Your task to perform on an android device: Open Amazon Image 0: 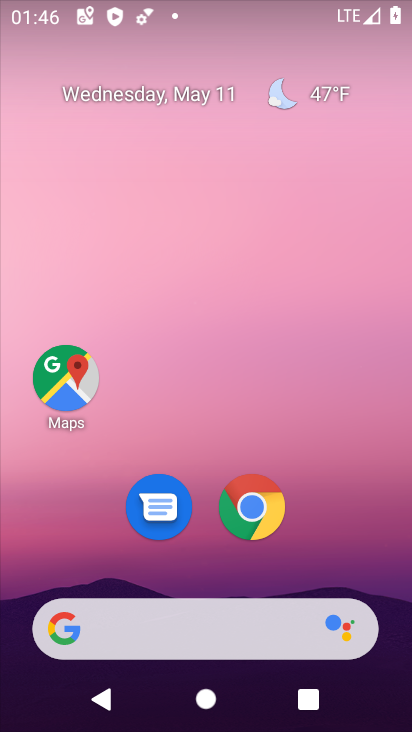
Step 0: click (66, 372)
Your task to perform on an android device: Open Amazon Image 1: 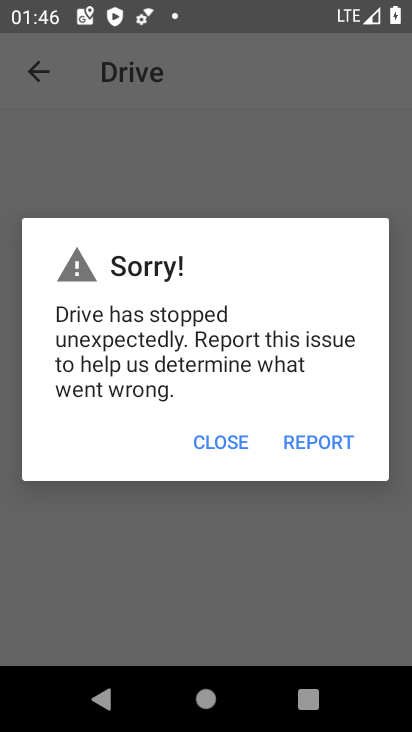
Step 1: click (208, 442)
Your task to perform on an android device: Open Amazon Image 2: 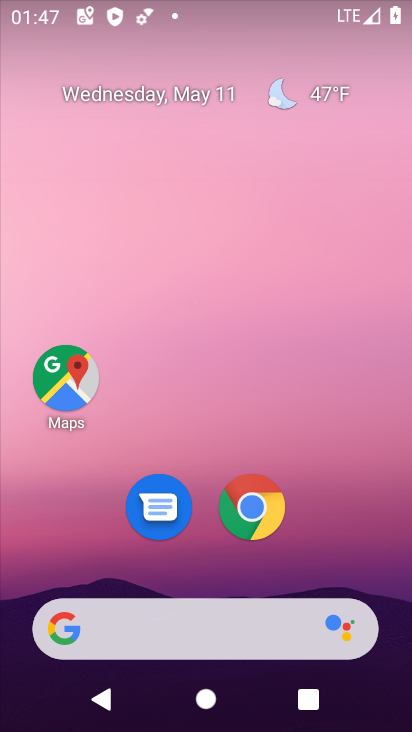
Step 2: click (251, 507)
Your task to perform on an android device: Open Amazon Image 3: 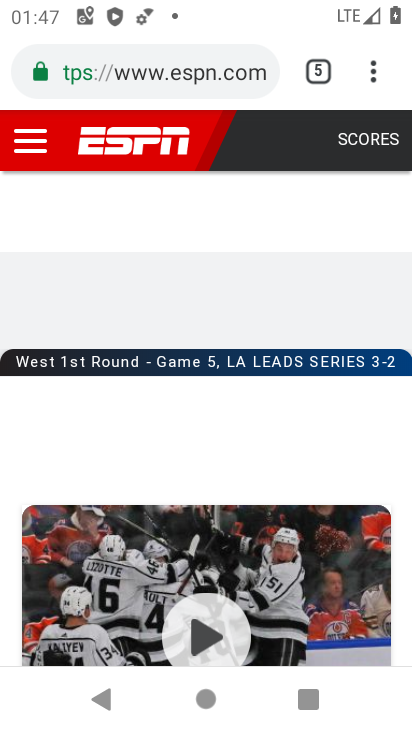
Step 3: click (370, 65)
Your task to perform on an android device: Open Amazon Image 4: 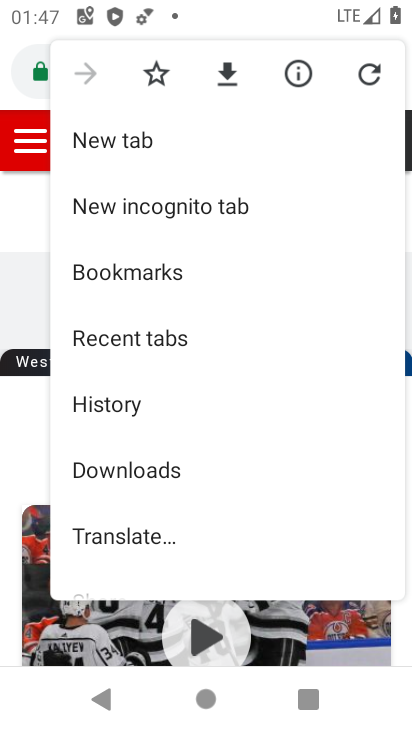
Step 4: click (132, 138)
Your task to perform on an android device: Open Amazon Image 5: 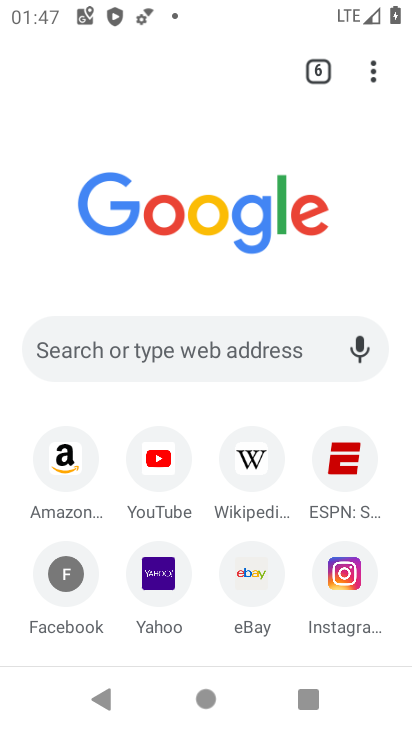
Step 5: click (66, 463)
Your task to perform on an android device: Open Amazon Image 6: 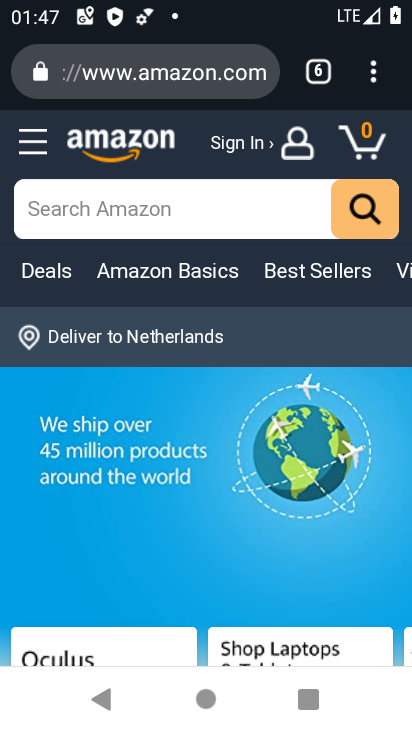
Step 6: task complete